Your task to perform on an android device: Open Yahoo.com Image 0: 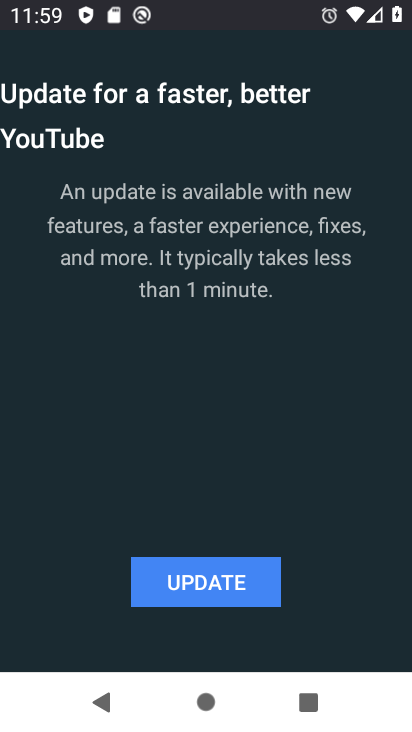
Step 0: press home button
Your task to perform on an android device: Open Yahoo.com Image 1: 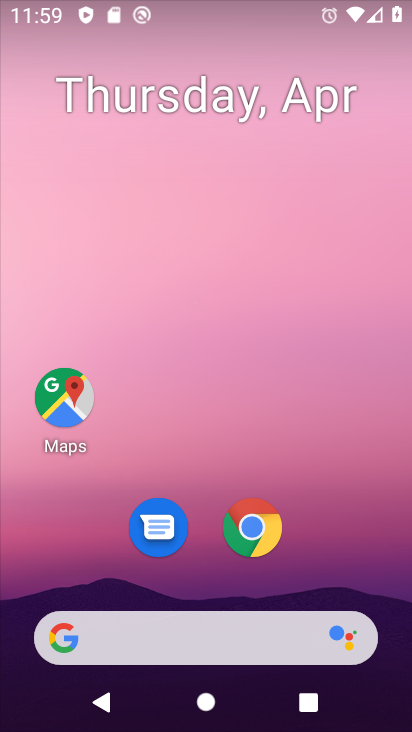
Step 1: click (253, 525)
Your task to perform on an android device: Open Yahoo.com Image 2: 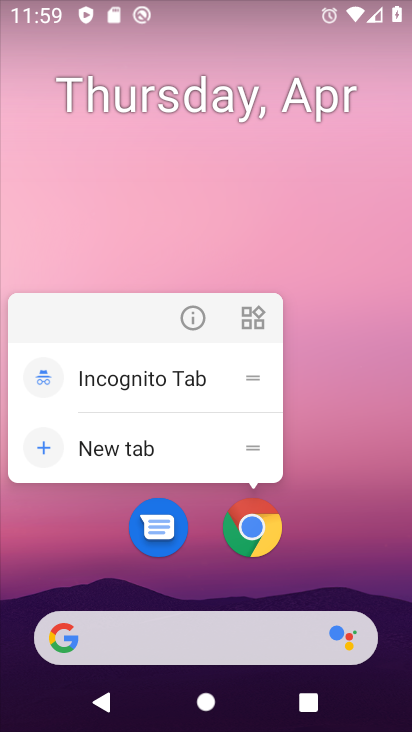
Step 2: click (252, 525)
Your task to perform on an android device: Open Yahoo.com Image 3: 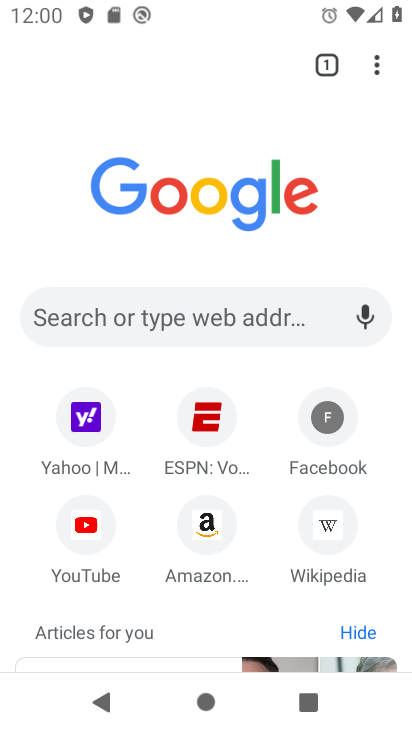
Step 3: click (92, 450)
Your task to perform on an android device: Open Yahoo.com Image 4: 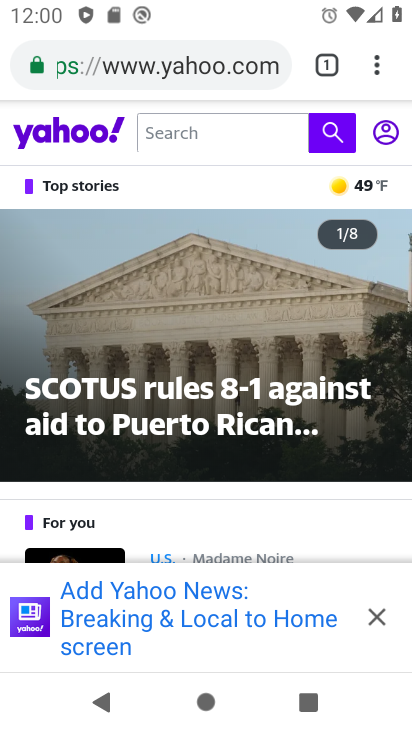
Step 4: task complete